Your task to perform on an android device: Search for Mexican restaurants on Maps Image 0: 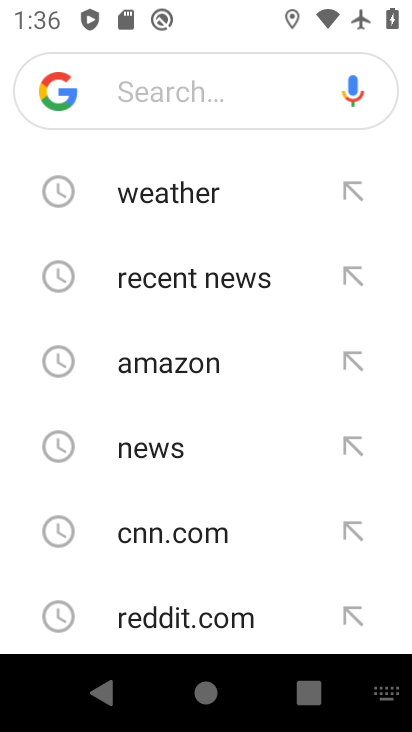
Step 0: press home button
Your task to perform on an android device: Search for Mexican restaurants on Maps Image 1: 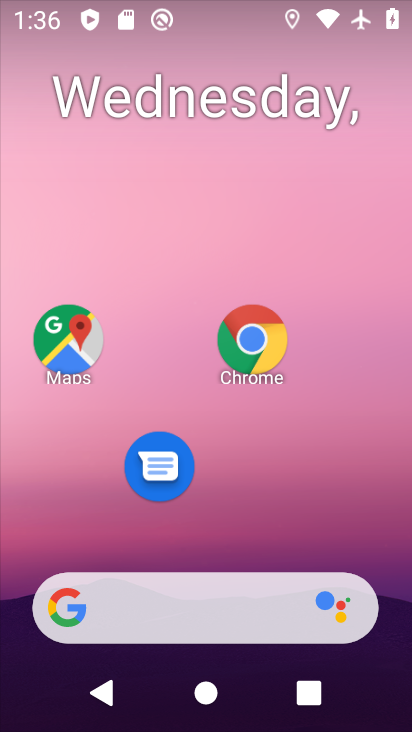
Step 1: click (64, 336)
Your task to perform on an android device: Search for Mexican restaurants on Maps Image 2: 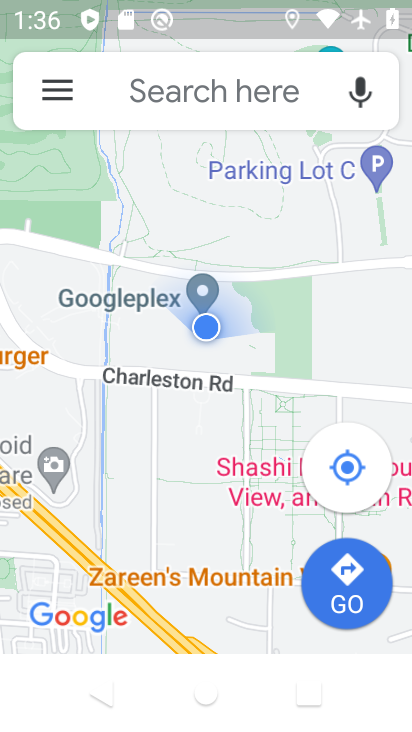
Step 2: click (215, 88)
Your task to perform on an android device: Search for Mexican restaurants on Maps Image 3: 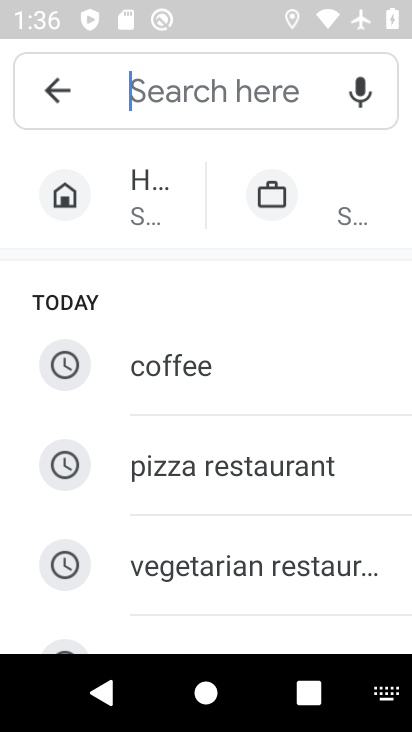
Step 3: drag from (236, 561) to (376, 246)
Your task to perform on an android device: Search for Mexican restaurants on Maps Image 4: 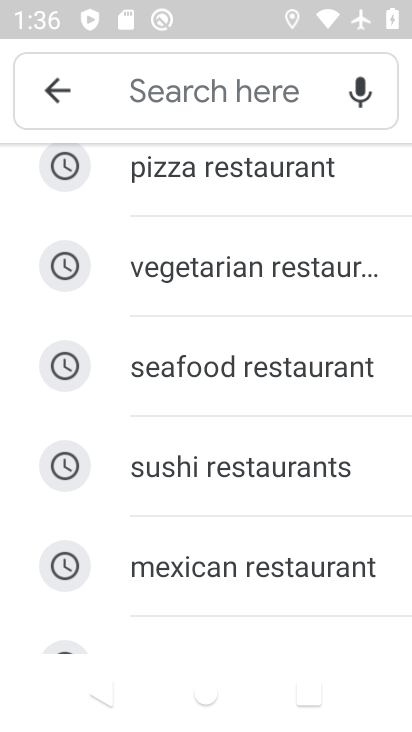
Step 4: click (232, 566)
Your task to perform on an android device: Search for Mexican restaurants on Maps Image 5: 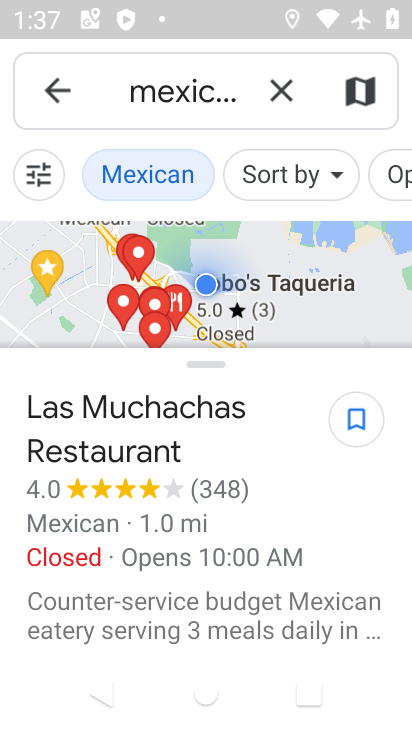
Step 5: task complete